Your task to perform on an android device: Go to calendar. Show me events next week Image 0: 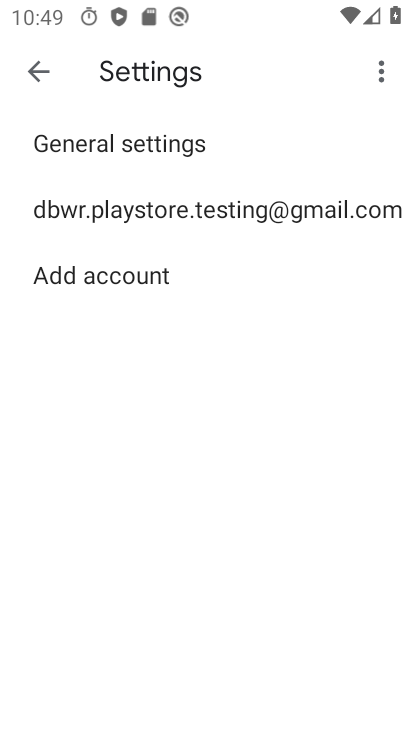
Step 0: press home button
Your task to perform on an android device: Go to calendar. Show me events next week Image 1: 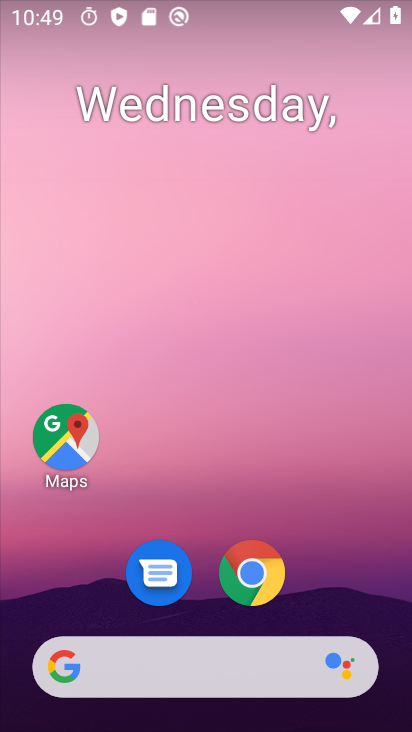
Step 1: drag from (380, 590) to (333, 132)
Your task to perform on an android device: Go to calendar. Show me events next week Image 2: 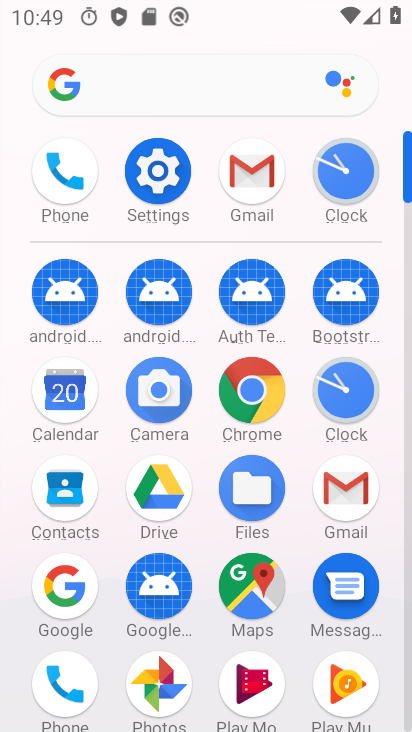
Step 2: click (46, 409)
Your task to perform on an android device: Go to calendar. Show me events next week Image 3: 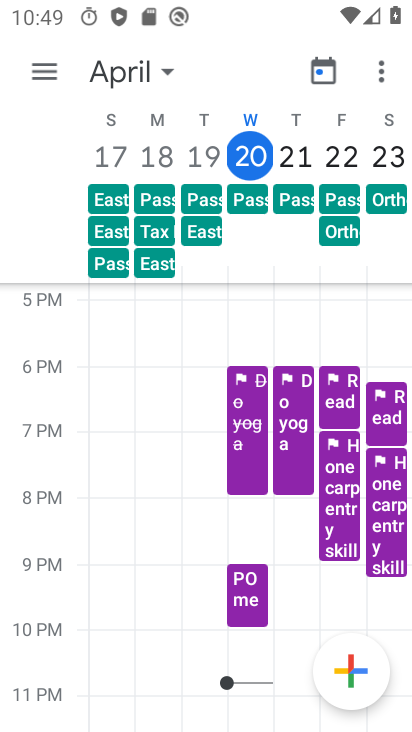
Step 3: press home button
Your task to perform on an android device: Go to calendar. Show me events next week Image 4: 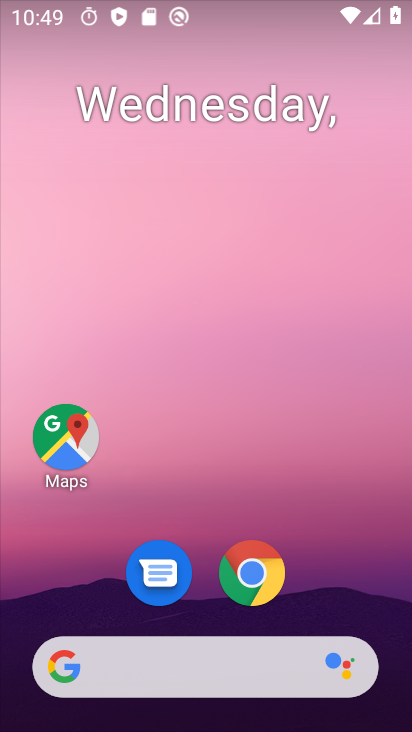
Step 4: drag from (379, 513) to (358, 209)
Your task to perform on an android device: Go to calendar. Show me events next week Image 5: 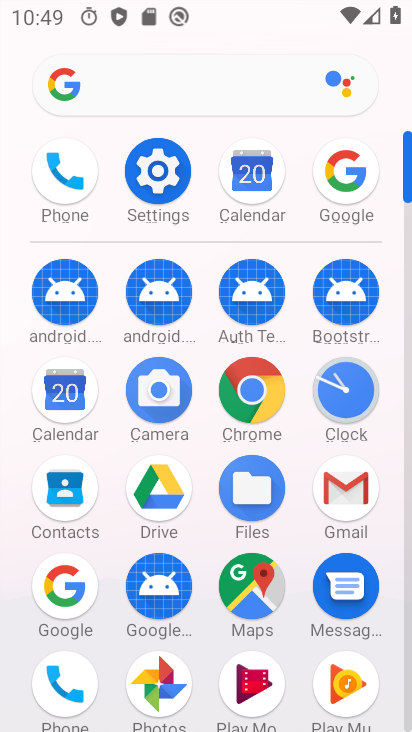
Step 5: click (62, 395)
Your task to perform on an android device: Go to calendar. Show me events next week Image 6: 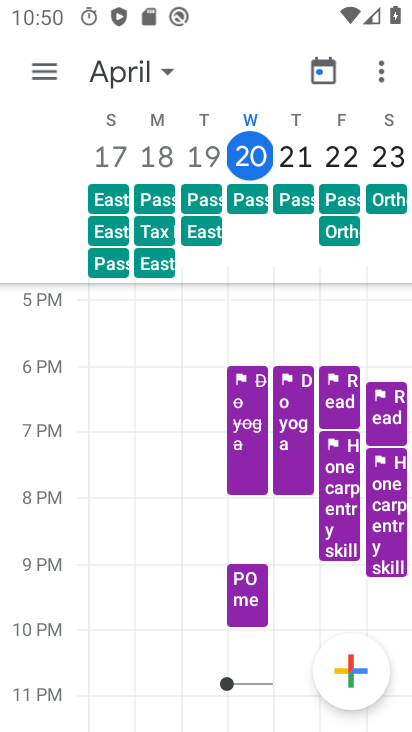
Step 6: click (159, 68)
Your task to perform on an android device: Go to calendar. Show me events next week Image 7: 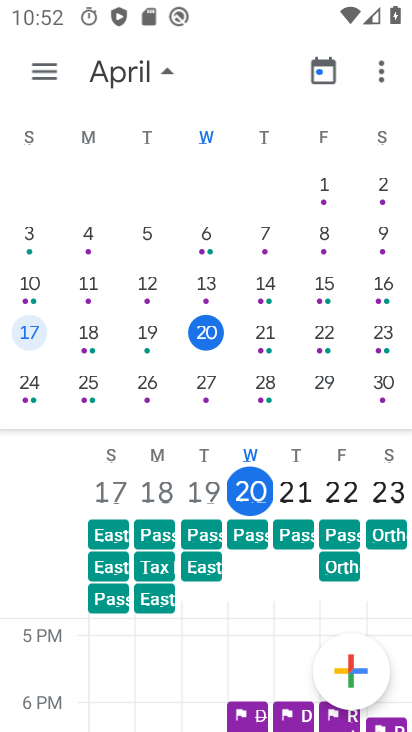
Step 7: click (211, 386)
Your task to perform on an android device: Go to calendar. Show me events next week Image 8: 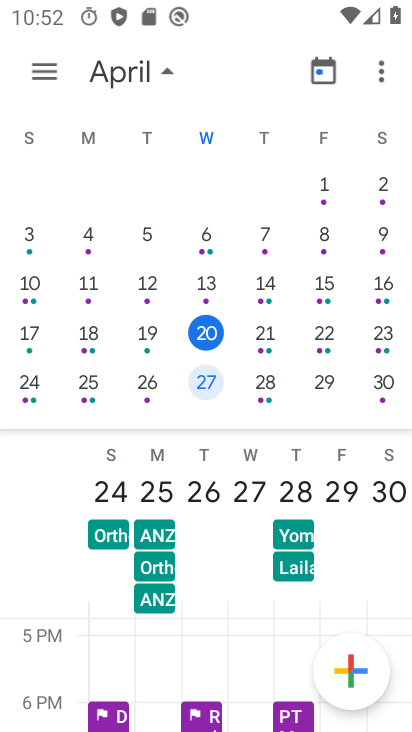
Step 8: task complete